Your task to perform on an android device: Show me recent news Image 0: 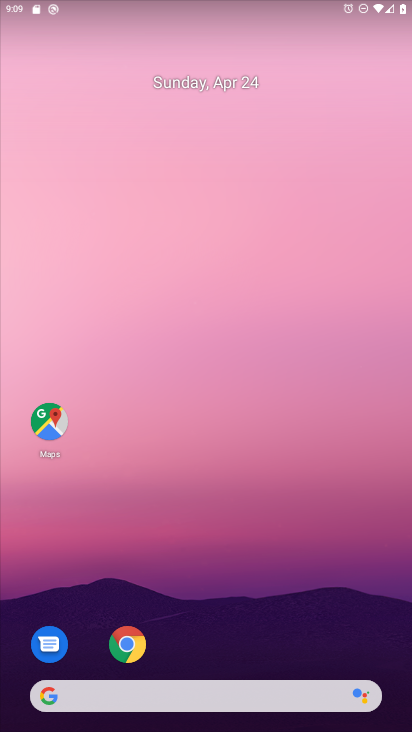
Step 0: drag from (201, 676) to (149, 66)
Your task to perform on an android device: Show me recent news Image 1: 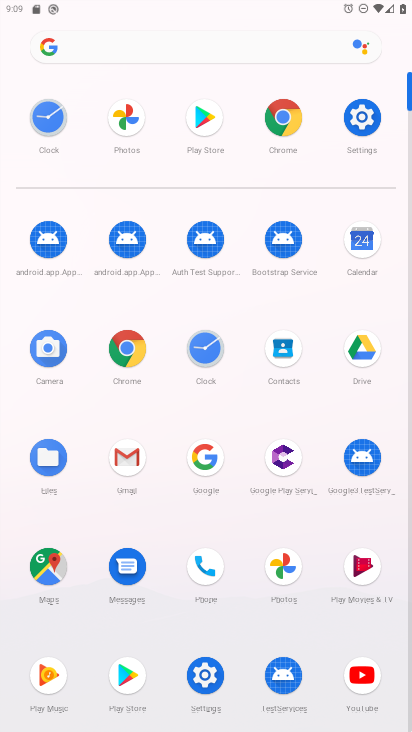
Step 1: task complete